Your task to perform on an android device: find snoozed emails in the gmail app Image 0: 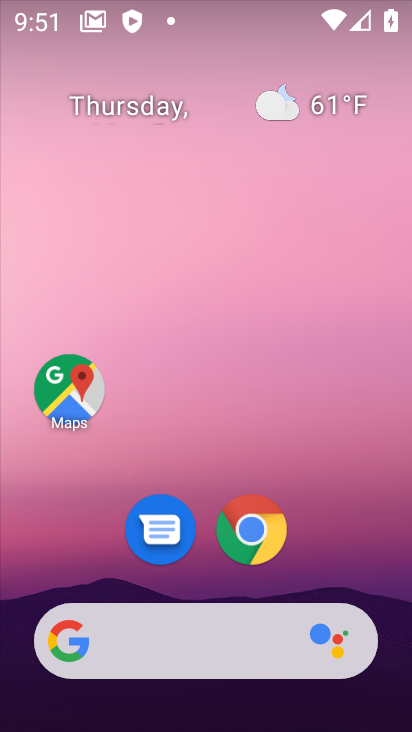
Step 0: drag from (368, 436) to (358, 264)
Your task to perform on an android device: find snoozed emails in the gmail app Image 1: 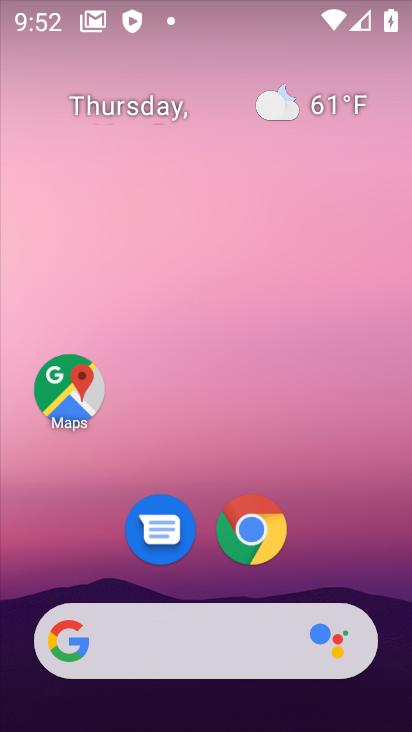
Step 1: click (289, 179)
Your task to perform on an android device: find snoozed emails in the gmail app Image 2: 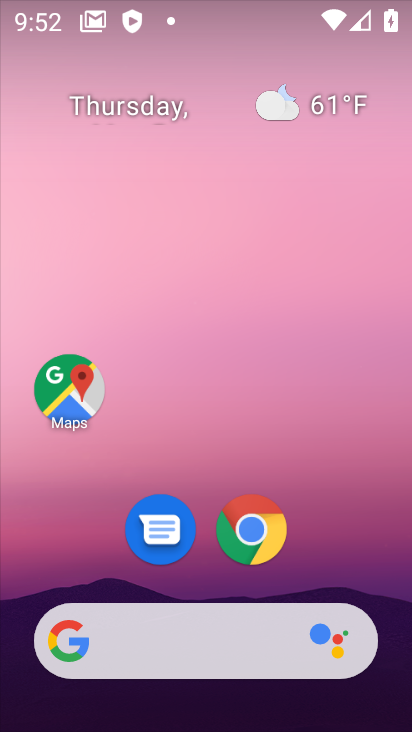
Step 2: drag from (306, 152) to (291, 78)
Your task to perform on an android device: find snoozed emails in the gmail app Image 3: 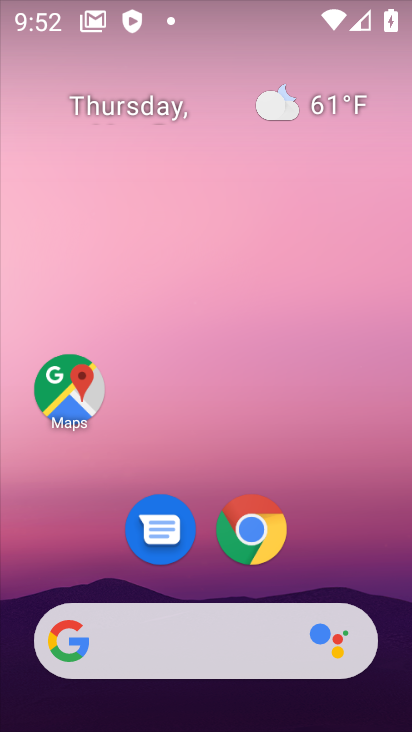
Step 3: drag from (293, 219) to (275, 150)
Your task to perform on an android device: find snoozed emails in the gmail app Image 4: 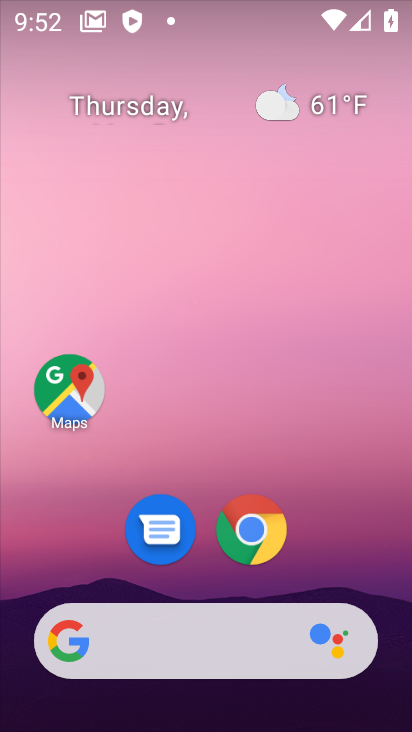
Step 4: drag from (372, 567) to (302, 234)
Your task to perform on an android device: find snoozed emails in the gmail app Image 5: 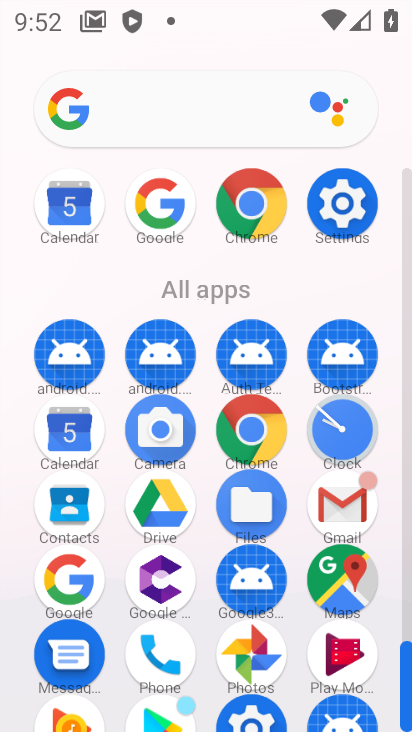
Step 5: click (351, 512)
Your task to perform on an android device: find snoozed emails in the gmail app Image 6: 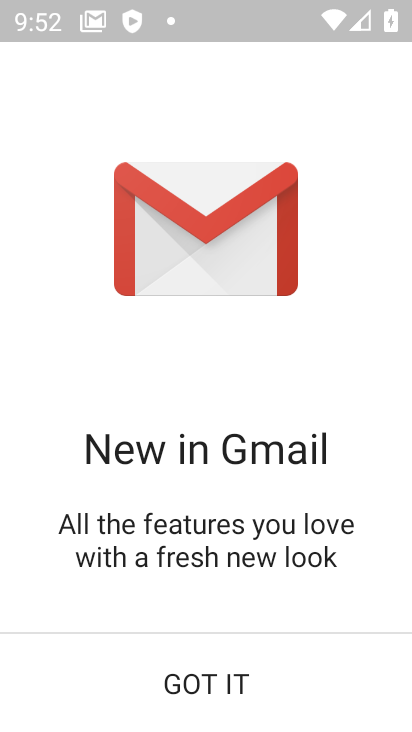
Step 6: click (213, 672)
Your task to perform on an android device: find snoozed emails in the gmail app Image 7: 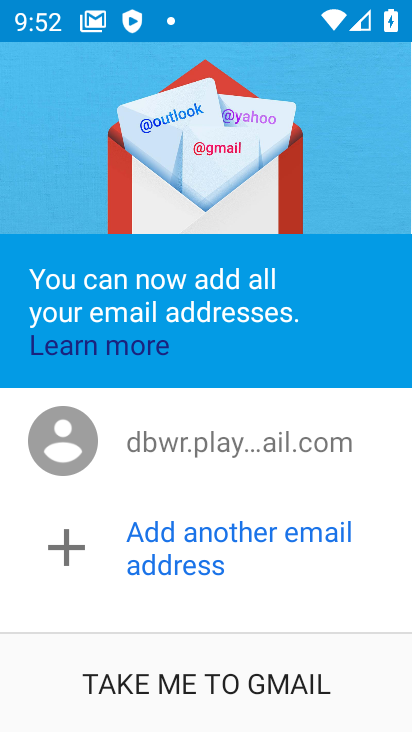
Step 7: click (213, 672)
Your task to perform on an android device: find snoozed emails in the gmail app Image 8: 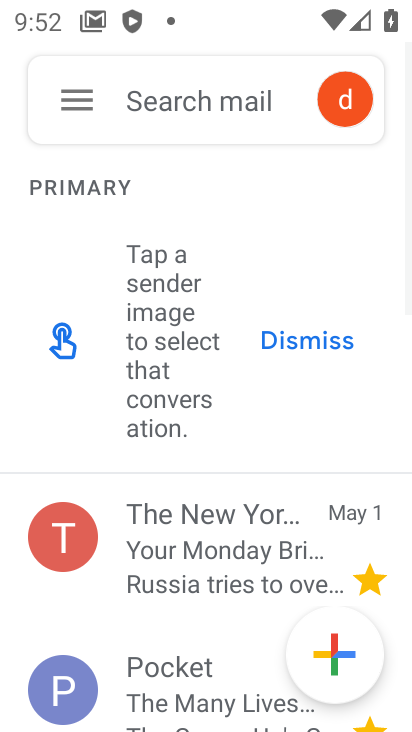
Step 8: click (67, 104)
Your task to perform on an android device: find snoozed emails in the gmail app Image 9: 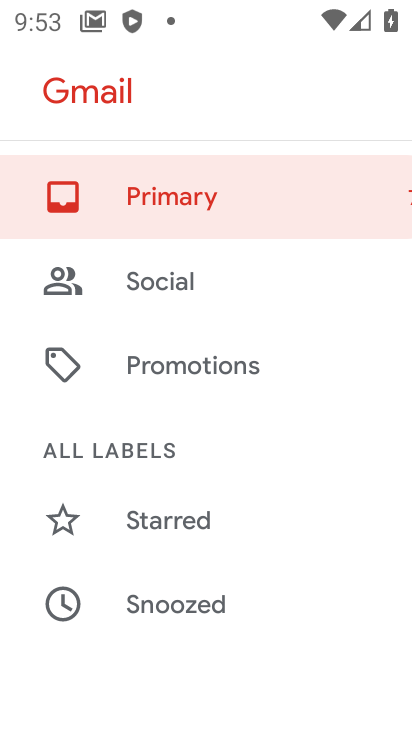
Step 9: click (190, 601)
Your task to perform on an android device: find snoozed emails in the gmail app Image 10: 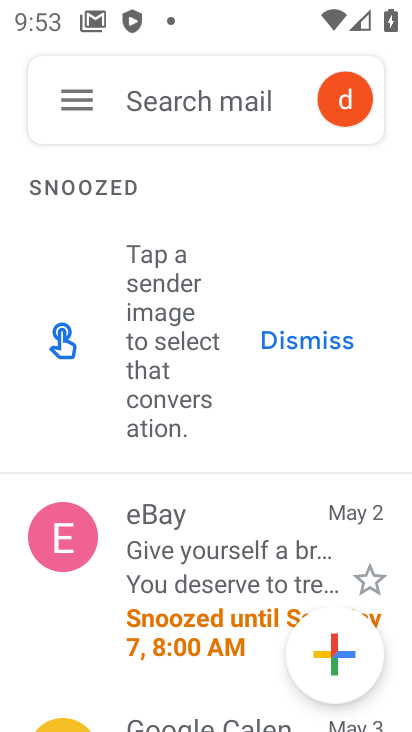
Step 10: task complete